Your task to perform on an android device: move a message to another label in the gmail app Image 0: 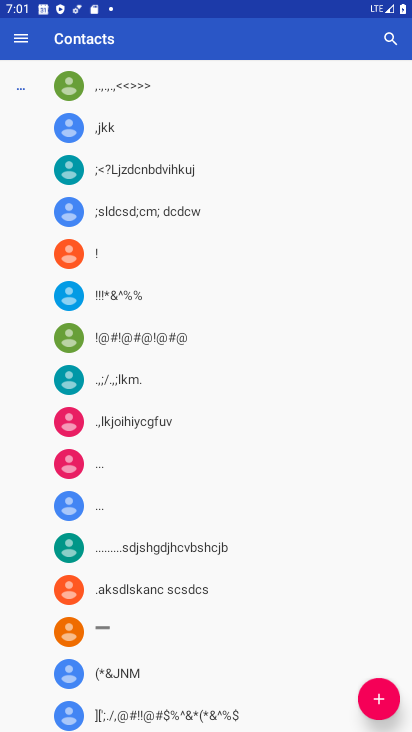
Step 0: press home button
Your task to perform on an android device: move a message to another label in the gmail app Image 1: 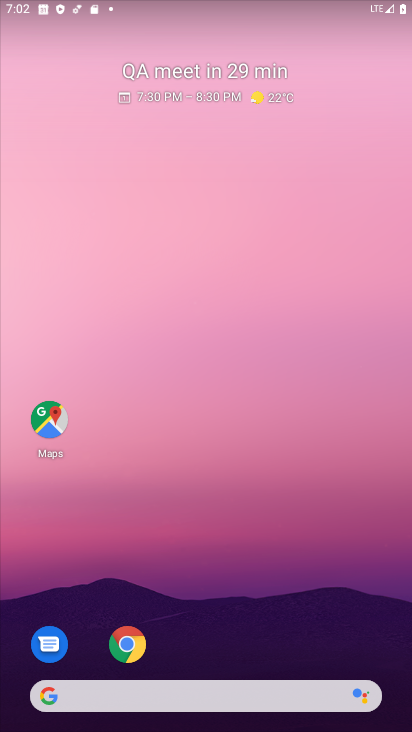
Step 1: drag from (266, 710) to (217, 297)
Your task to perform on an android device: move a message to another label in the gmail app Image 2: 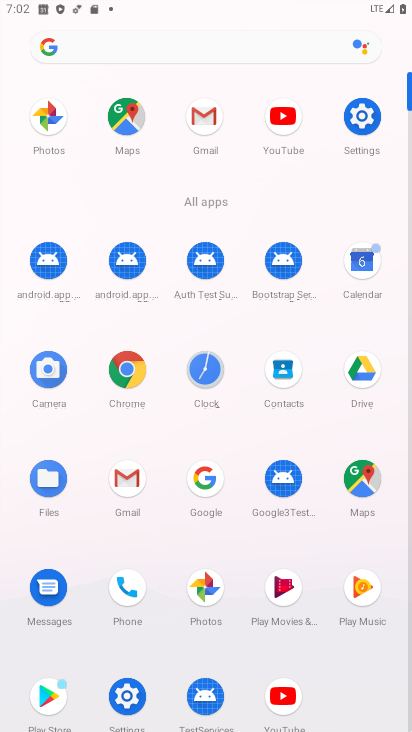
Step 2: click (142, 486)
Your task to perform on an android device: move a message to another label in the gmail app Image 3: 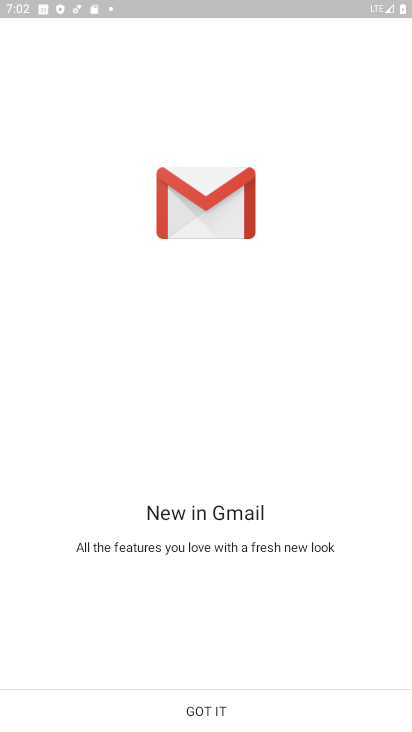
Step 3: click (217, 709)
Your task to perform on an android device: move a message to another label in the gmail app Image 4: 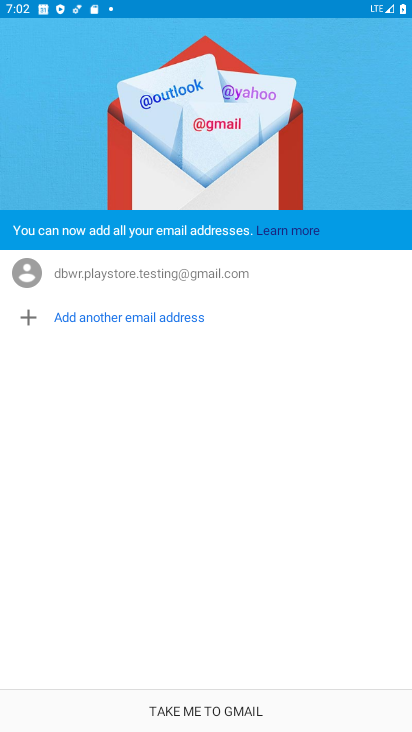
Step 4: click (205, 704)
Your task to perform on an android device: move a message to another label in the gmail app Image 5: 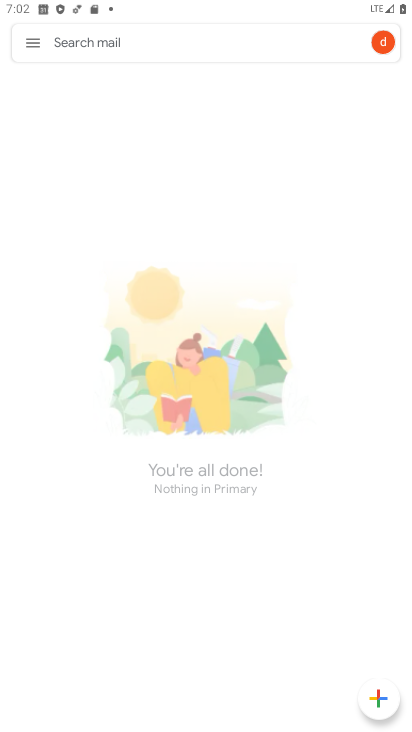
Step 5: task complete